Your task to perform on an android device: open chrome and create a bookmark for the current page Image 0: 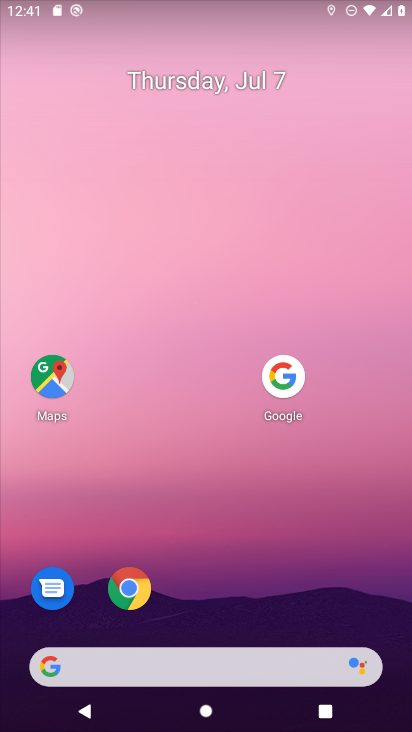
Step 0: click (127, 599)
Your task to perform on an android device: open chrome and create a bookmark for the current page Image 1: 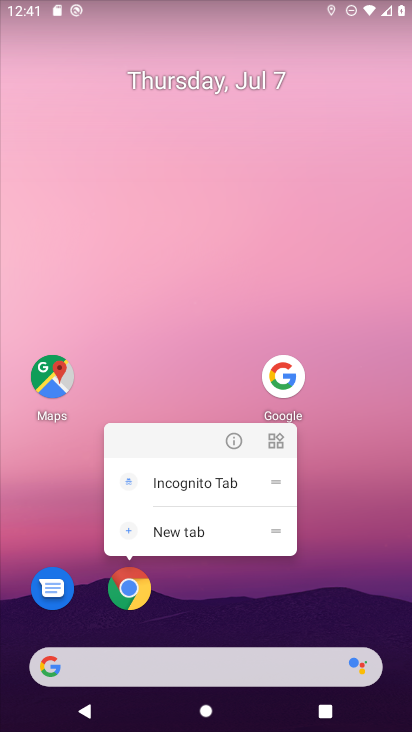
Step 1: click (131, 594)
Your task to perform on an android device: open chrome and create a bookmark for the current page Image 2: 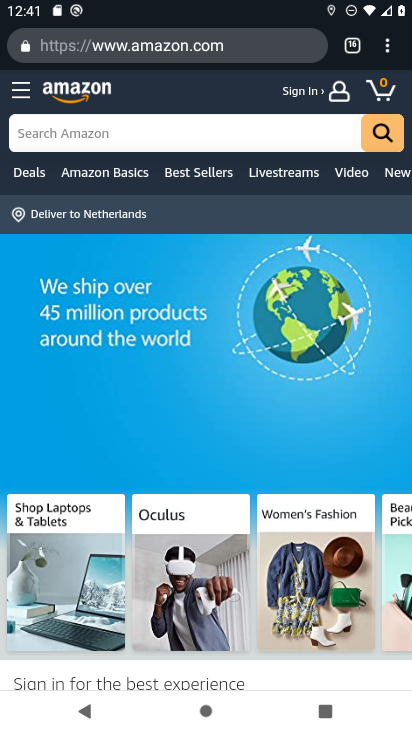
Step 2: click (388, 51)
Your task to perform on an android device: open chrome and create a bookmark for the current page Image 3: 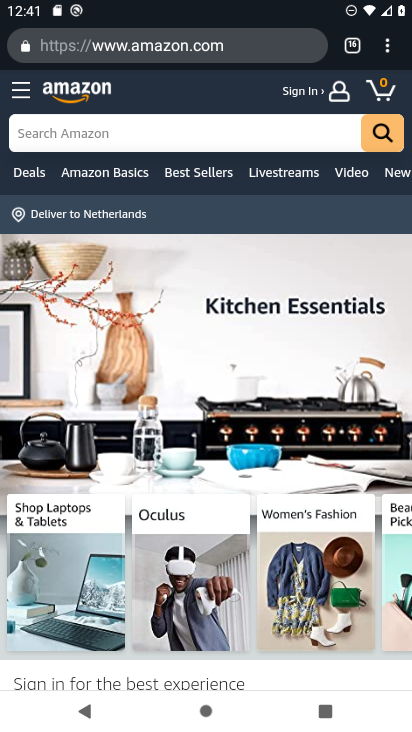
Step 3: click (388, 64)
Your task to perform on an android device: open chrome and create a bookmark for the current page Image 4: 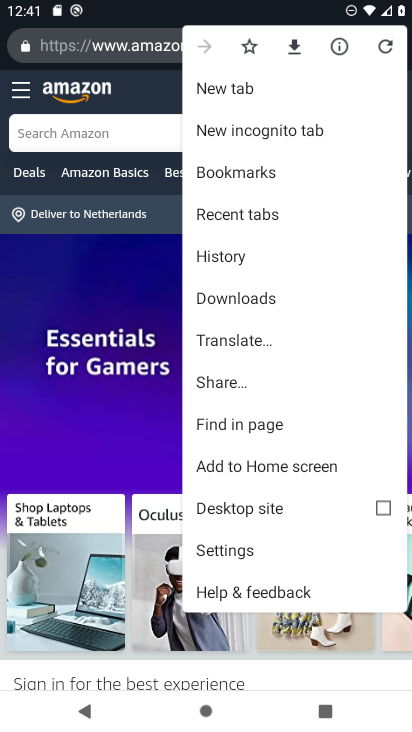
Step 4: click (247, 44)
Your task to perform on an android device: open chrome and create a bookmark for the current page Image 5: 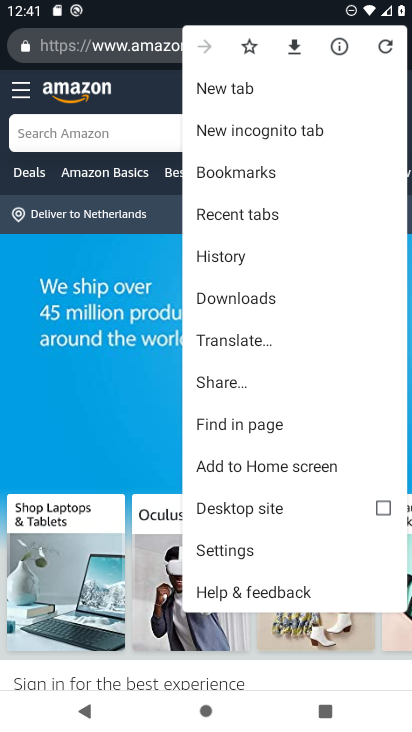
Step 5: click (249, 50)
Your task to perform on an android device: open chrome and create a bookmark for the current page Image 6: 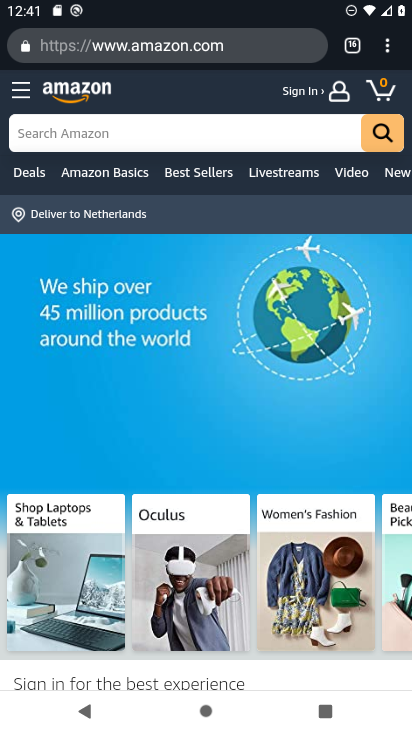
Step 6: task complete